Your task to perform on an android device: turn pop-ups on in chrome Image 0: 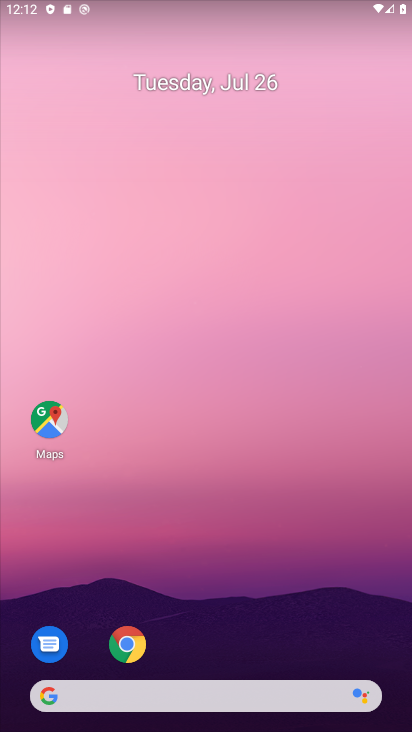
Step 0: drag from (272, 620) to (242, 23)
Your task to perform on an android device: turn pop-ups on in chrome Image 1: 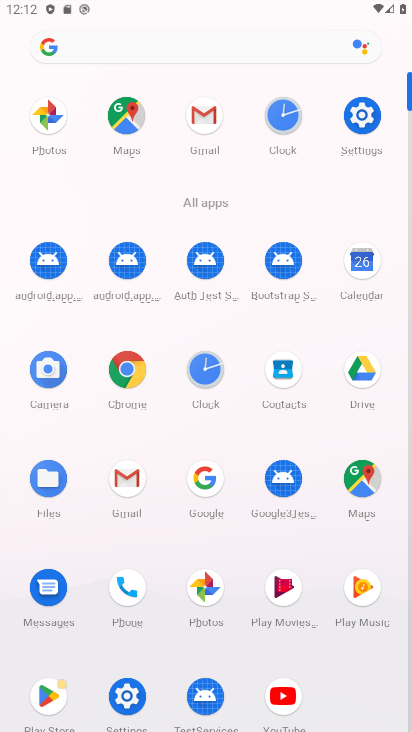
Step 1: click (110, 370)
Your task to perform on an android device: turn pop-ups on in chrome Image 2: 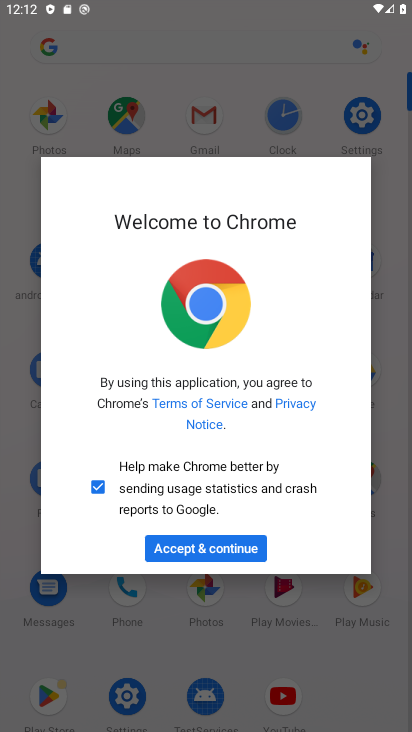
Step 2: click (207, 539)
Your task to perform on an android device: turn pop-ups on in chrome Image 3: 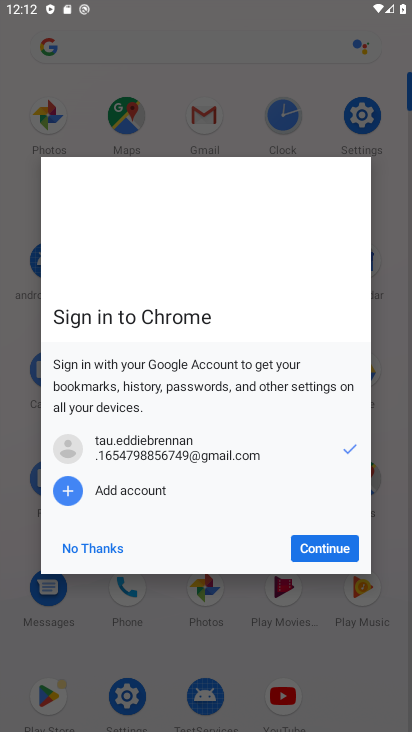
Step 3: click (312, 546)
Your task to perform on an android device: turn pop-ups on in chrome Image 4: 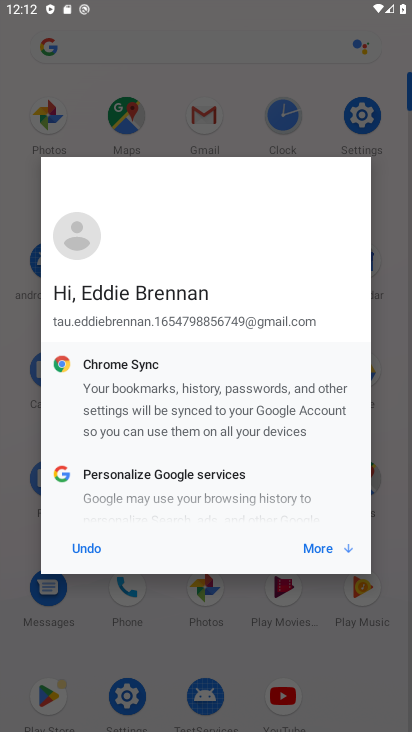
Step 4: click (317, 545)
Your task to perform on an android device: turn pop-ups on in chrome Image 5: 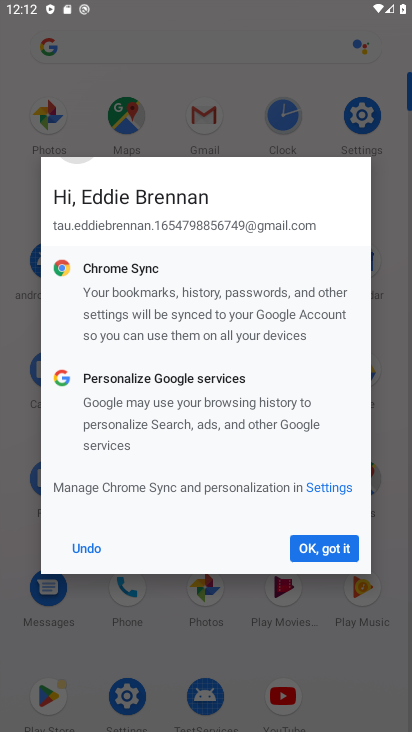
Step 5: click (319, 545)
Your task to perform on an android device: turn pop-ups on in chrome Image 6: 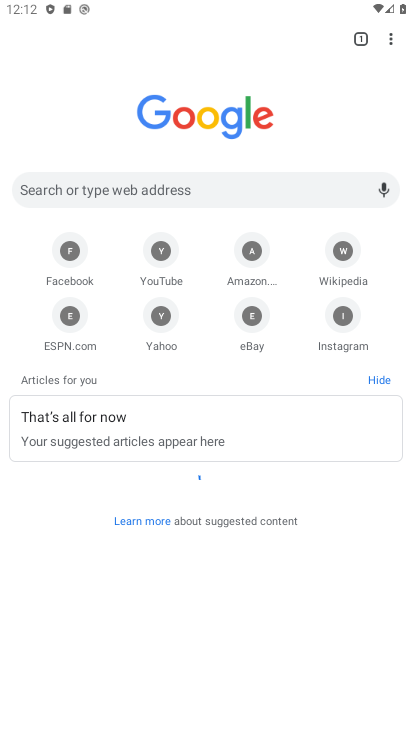
Step 6: click (394, 44)
Your task to perform on an android device: turn pop-ups on in chrome Image 7: 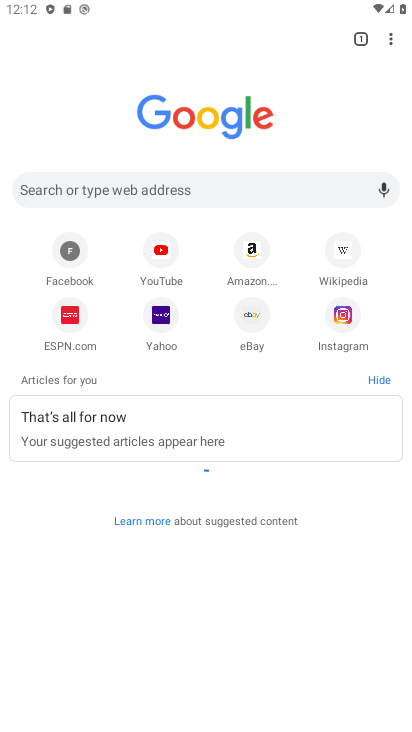
Step 7: click (394, 43)
Your task to perform on an android device: turn pop-ups on in chrome Image 8: 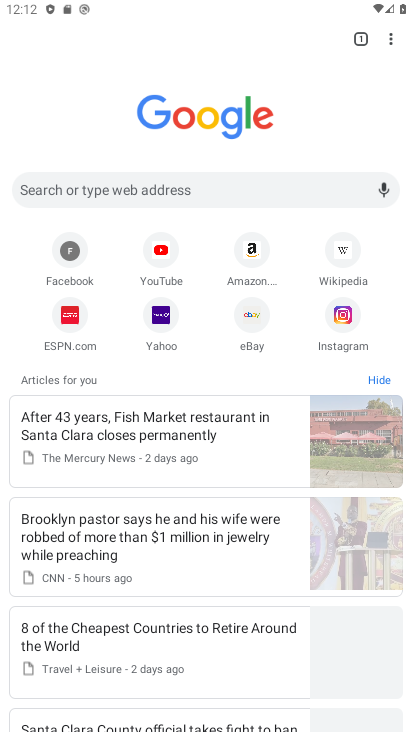
Step 8: click (394, 43)
Your task to perform on an android device: turn pop-ups on in chrome Image 9: 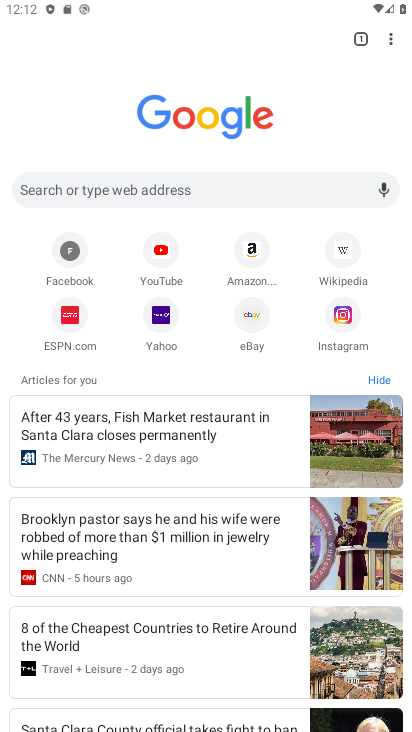
Step 9: click (394, 39)
Your task to perform on an android device: turn pop-ups on in chrome Image 10: 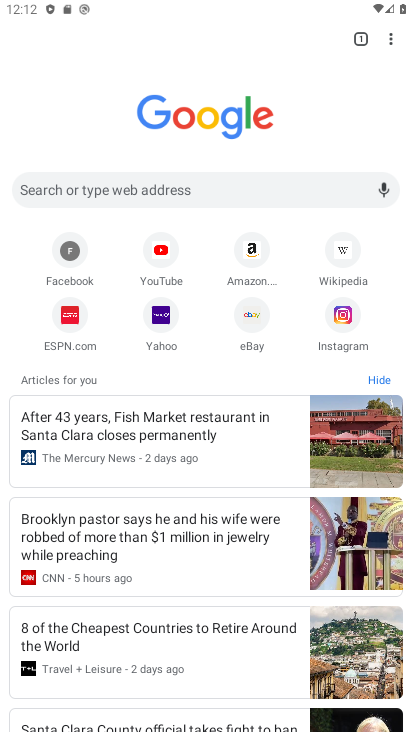
Step 10: click (394, 39)
Your task to perform on an android device: turn pop-ups on in chrome Image 11: 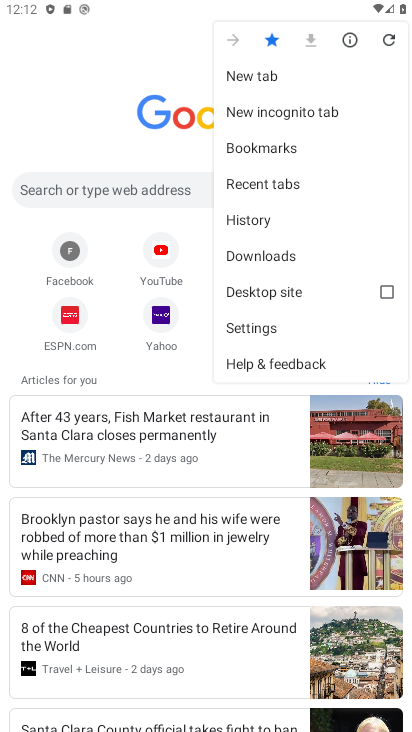
Step 11: click (247, 334)
Your task to perform on an android device: turn pop-ups on in chrome Image 12: 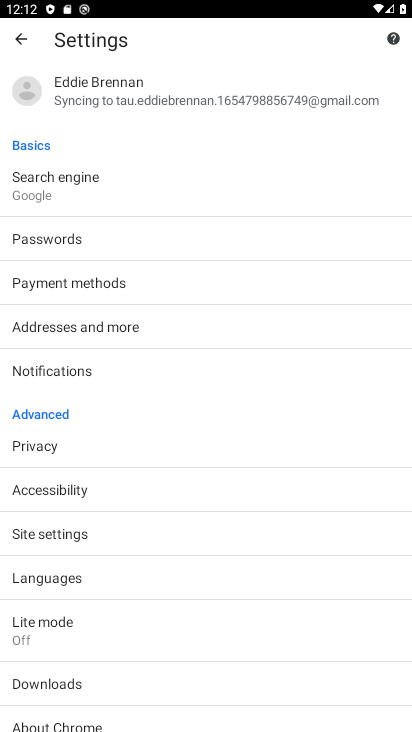
Step 12: click (109, 256)
Your task to perform on an android device: turn pop-ups on in chrome Image 13: 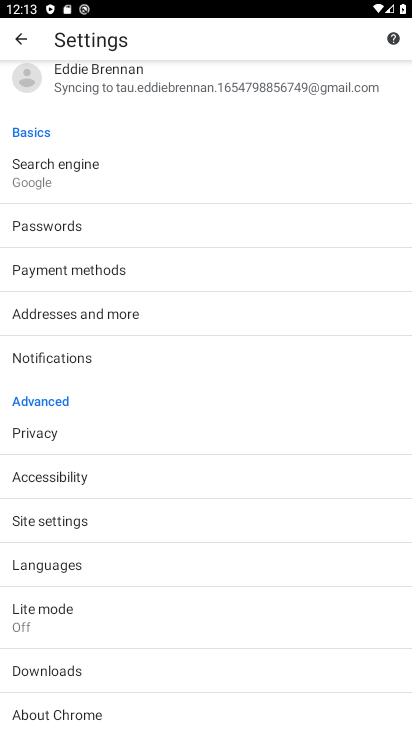
Step 13: click (80, 520)
Your task to perform on an android device: turn pop-ups on in chrome Image 14: 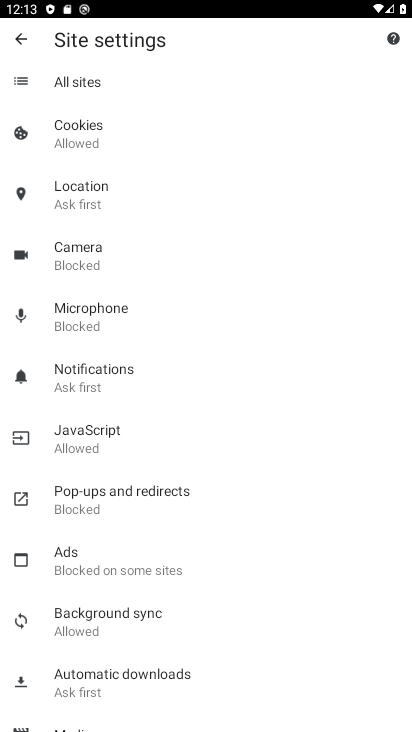
Step 14: click (152, 506)
Your task to perform on an android device: turn pop-ups on in chrome Image 15: 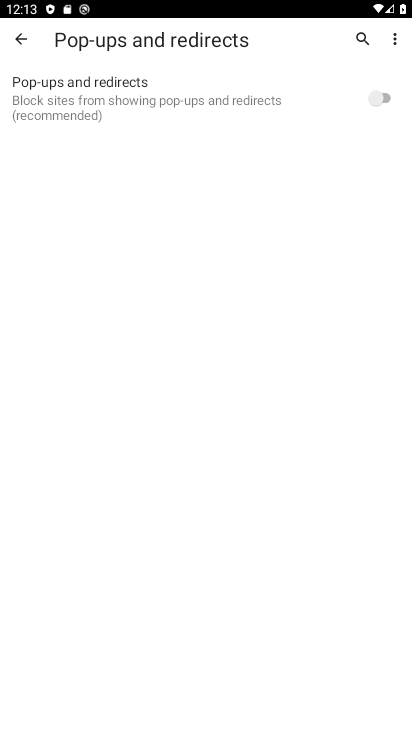
Step 15: click (377, 100)
Your task to perform on an android device: turn pop-ups on in chrome Image 16: 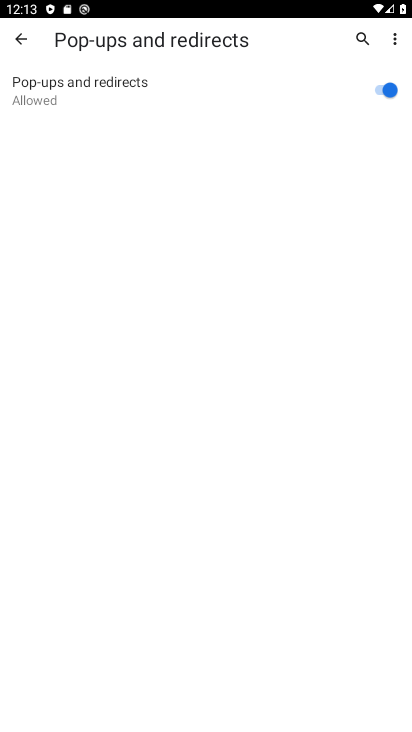
Step 16: task complete